Your task to perform on an android device: uninstall "Google Maps" Image 0: 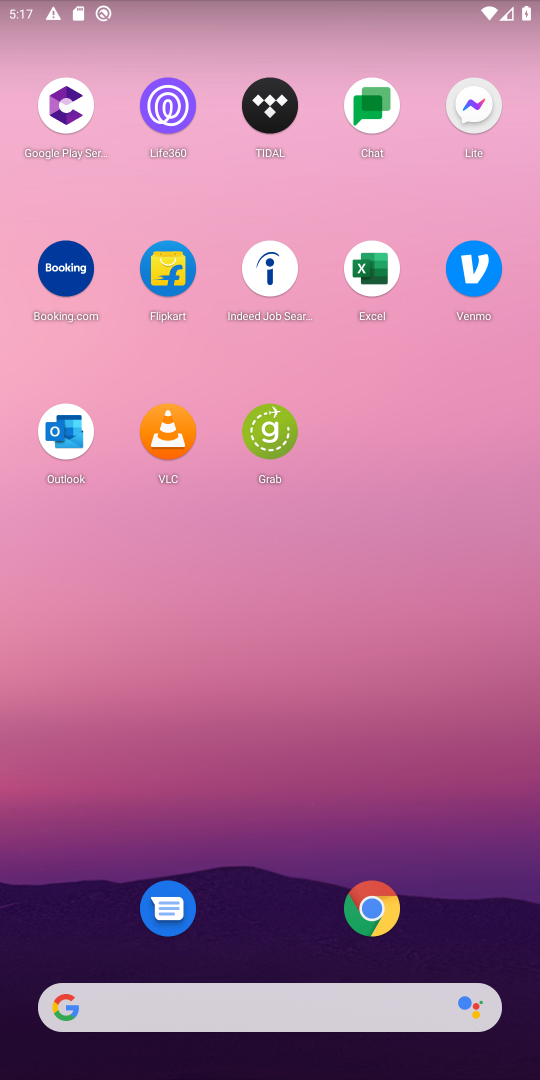
Step 0: drag from (260, 852) to (279, 145)
Your task to perform on an android device: uninstall "Google Maps" Image 1: 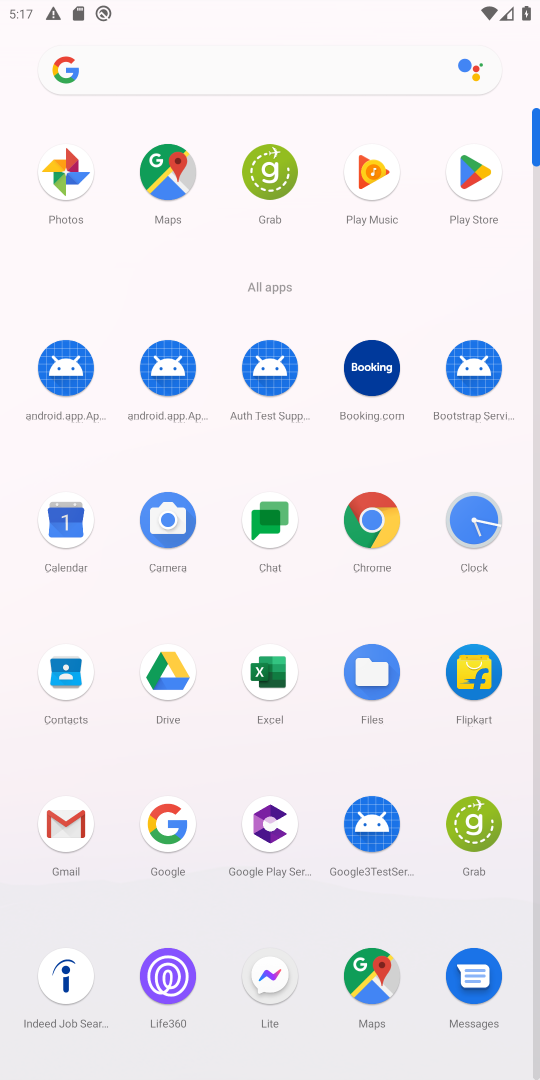
Step 1: click (475, 200)
Your task to perform on an android device: uninstall "Google Maps" Image 2: 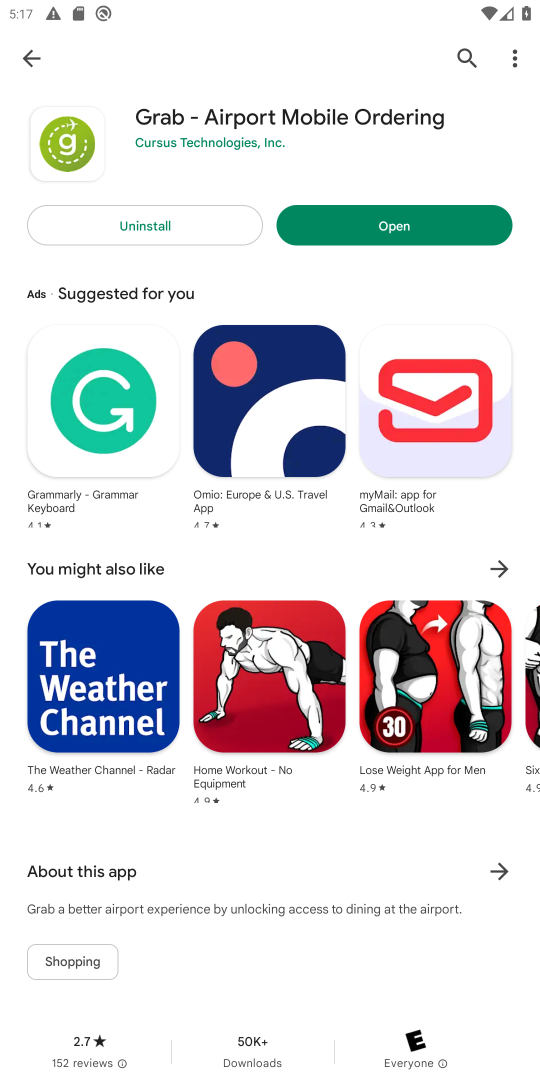
Step 2: click (19, 48)
Your task to perform on an android device: uninstall "Google Maps" Image 3: 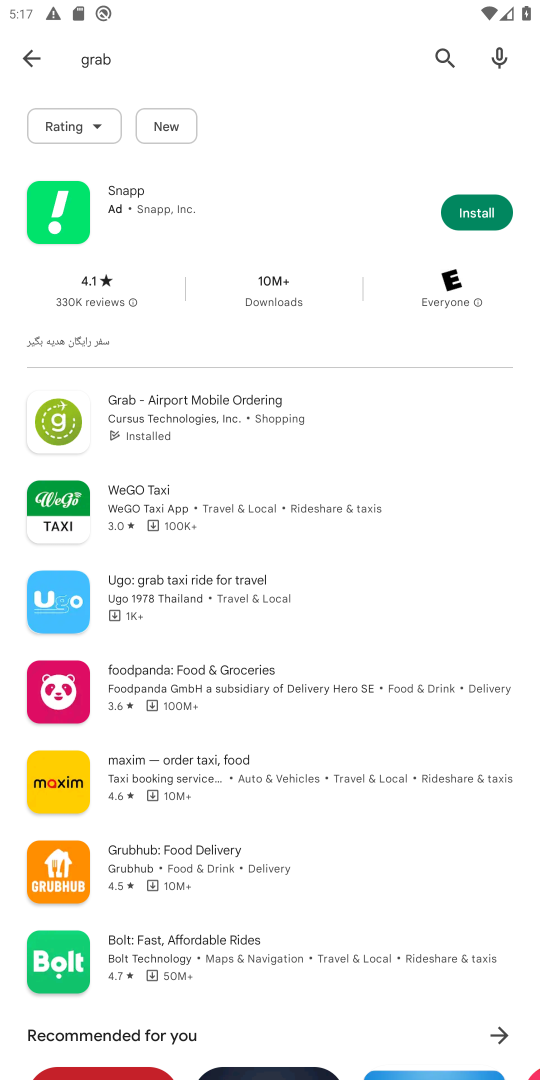
Step 3: click (40, 42)
Your task to perform on an android device: uninstall "Google Maps" Image 4: 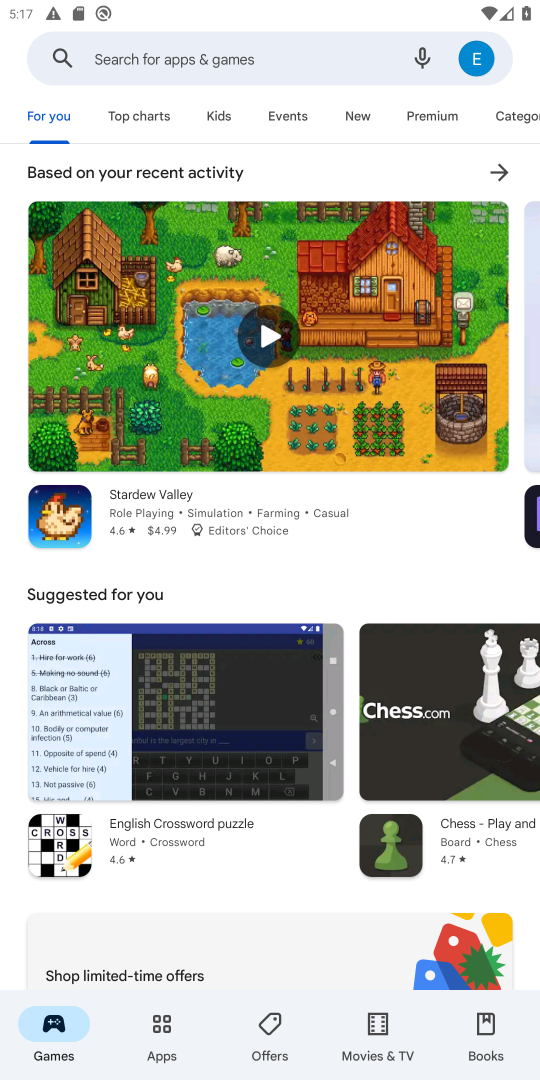
Step 4: click (151, 58)
Your task to perform on an android device: uninstall "Google Maps" Image 5: 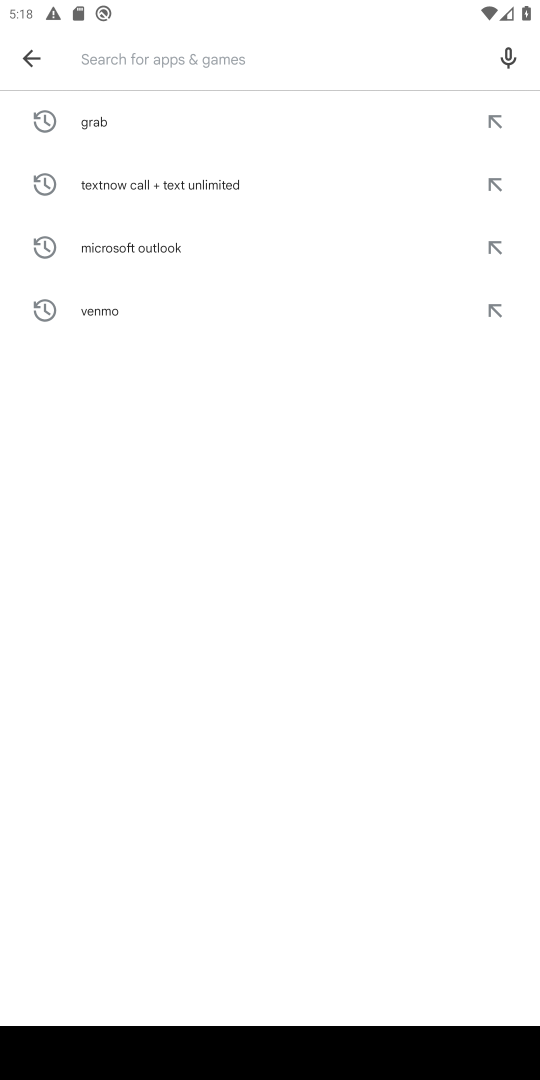
Step 5: type "Google Maps"
Your task to perform on an android device: uninstall "Google Maps" Image 6: 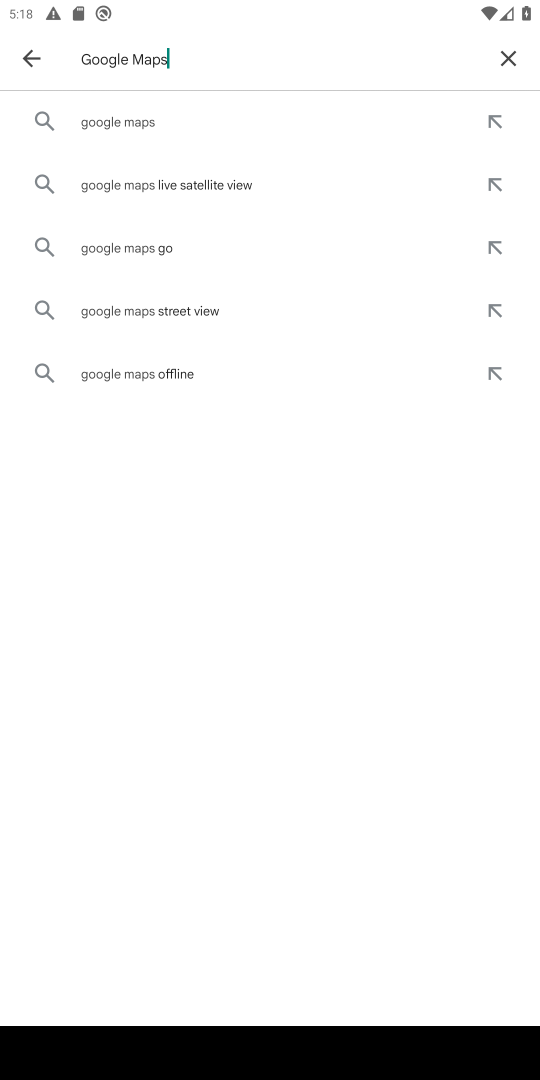
Step 6: click (104, 123)
Your task to perform on an android device: uninstall "Google Maps" Image 7: 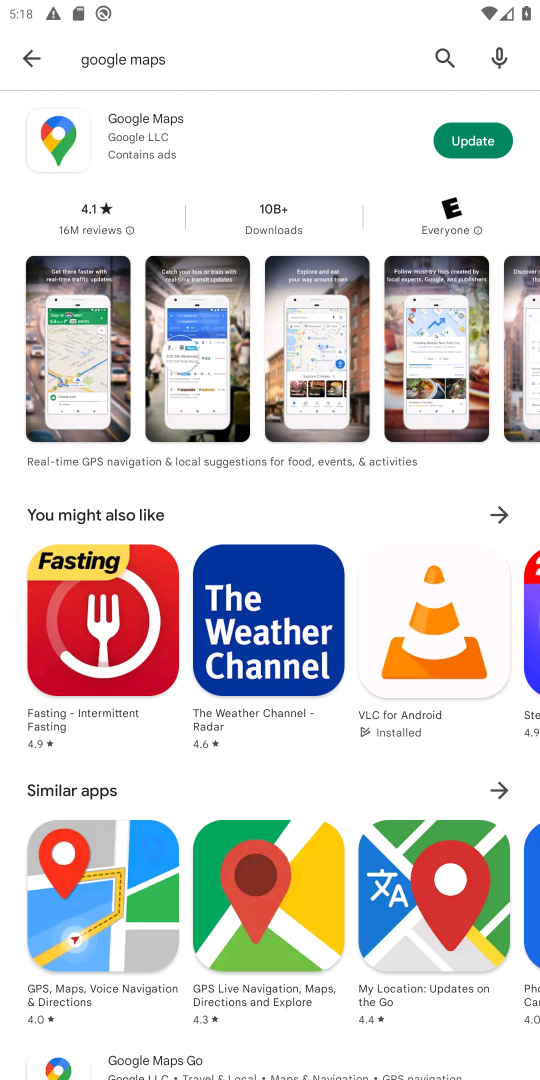
Step 7: click (449, 145)
Your task to perform on an android device: uninstall "Google Maps" Image 8: 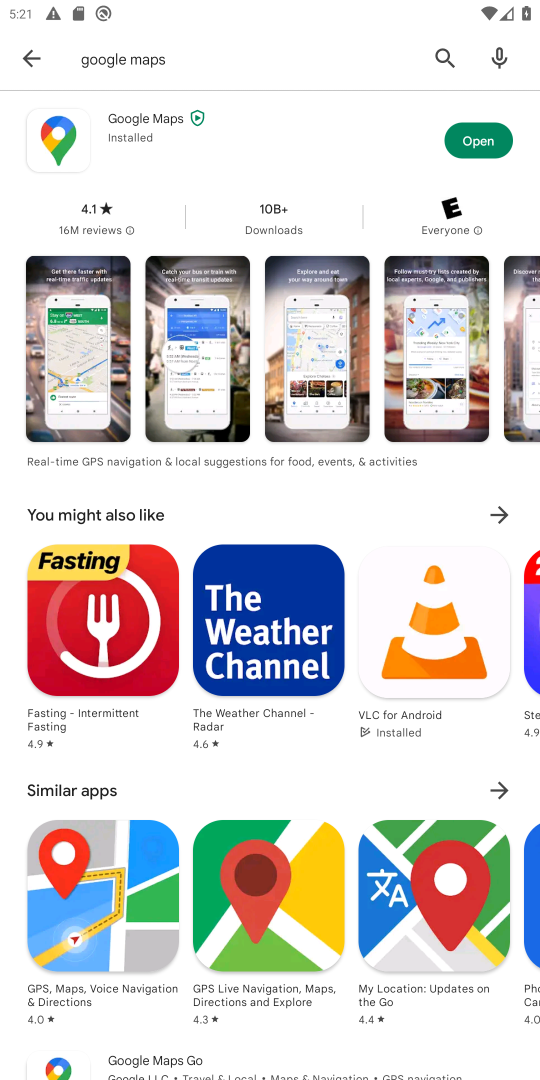
Step 8: click (116, 136)
Your task to perform on an android device: uninstall "Google Maps" Image 9: 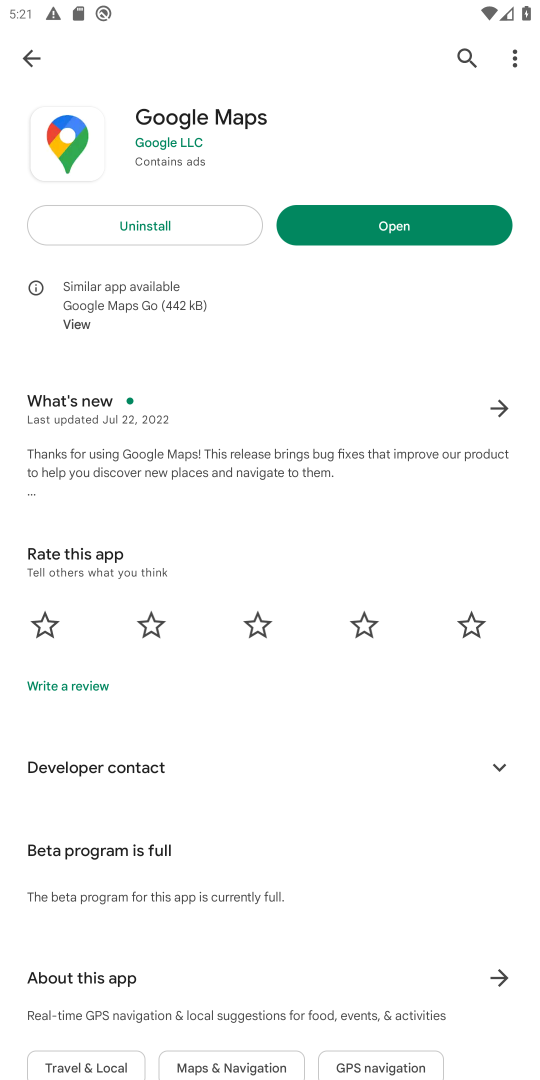
Step 9: click (112, 231)
Your task to perform on an android device: uninstall "Google Maps" Image 10: 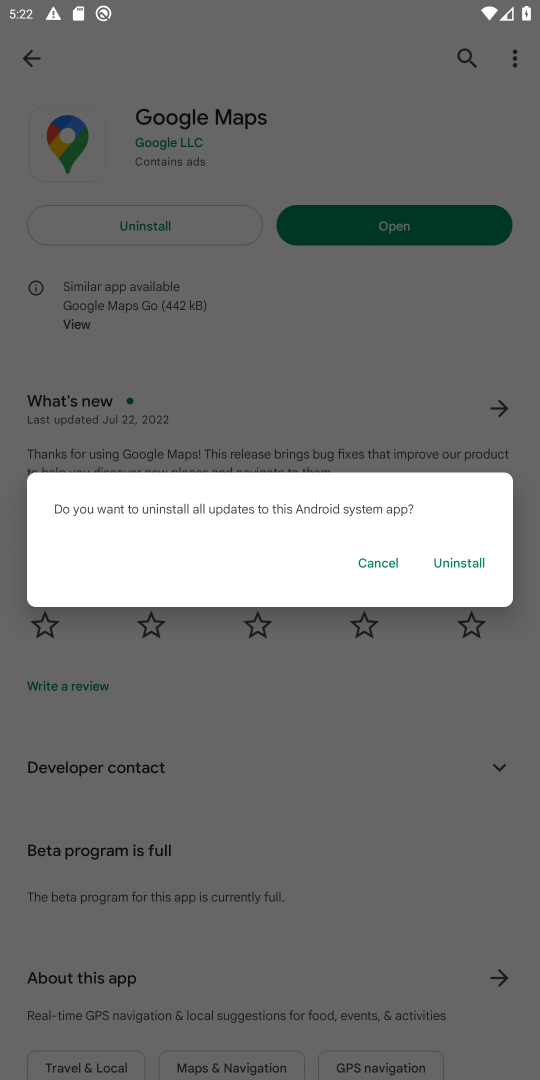
Step 10: click (473, 559)
Your task to perform on an android device: uninstall "Google Maps" Image 11: 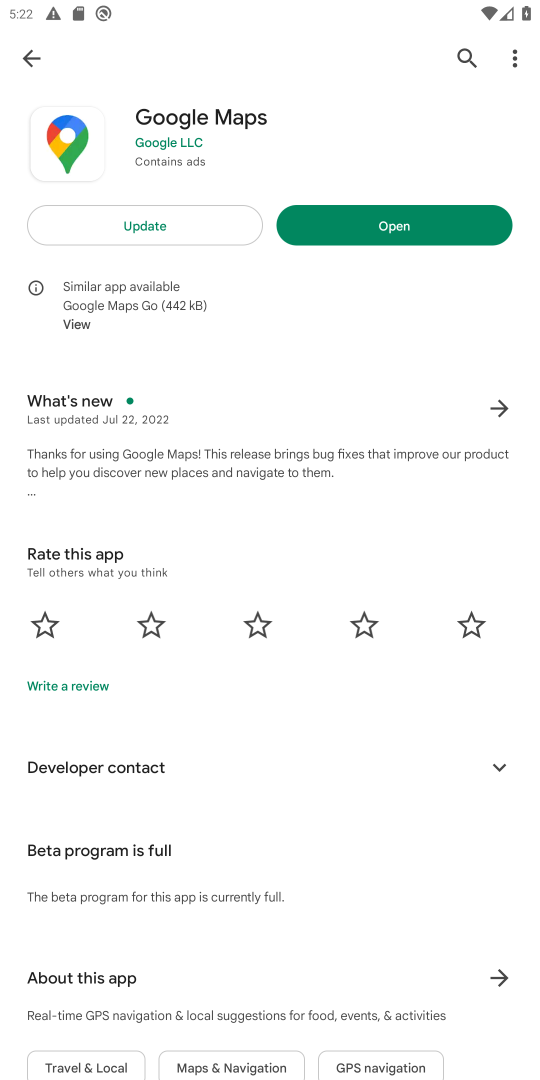
Step 11: task complete